Your task to perform on an android device: turn on data saver in the chrome app Image 0: 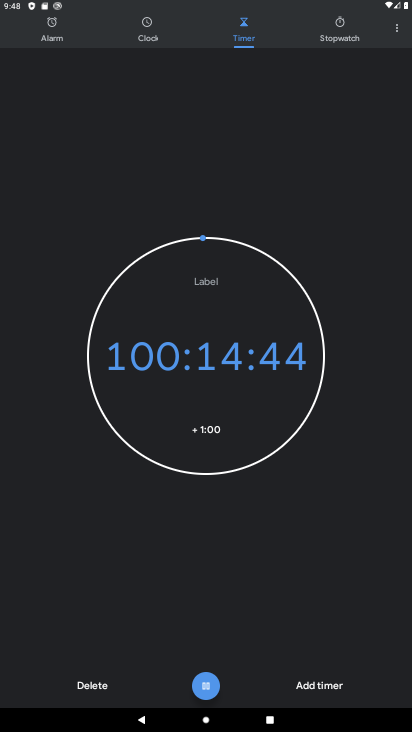
Step 0: press home button
Your task to perform on an android device: turn on data saver in the chrome app Image 1: 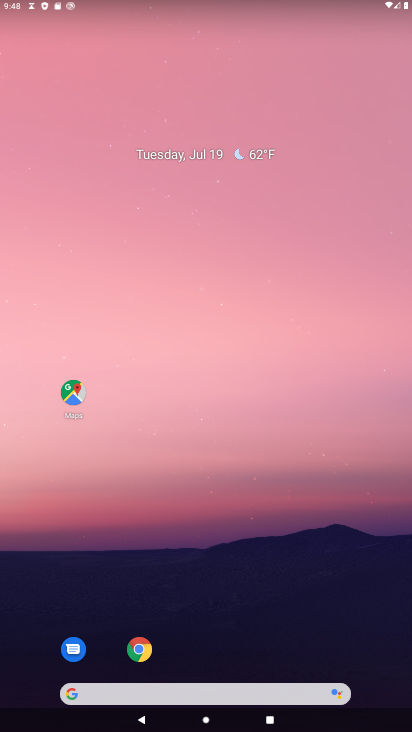
Step 1: drag from (225, 688) to (251, 156)
Your task to perform on an android device: turn on data saver in the chrome app Image 2: 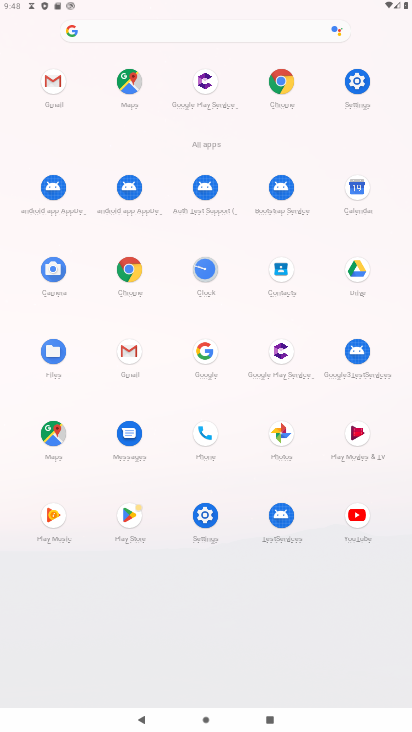
Step 2: click (138, 262)
Your task to perform on an android device: turn on data saver in the chrome app Image 3: 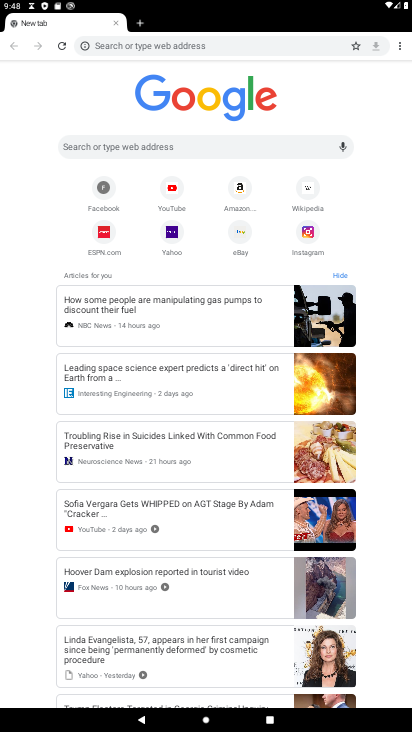
Step 3: drag from (400, 44) to (378, 135)
Your task to perform on an android device: turn on data saver in the chrome app Image 4: 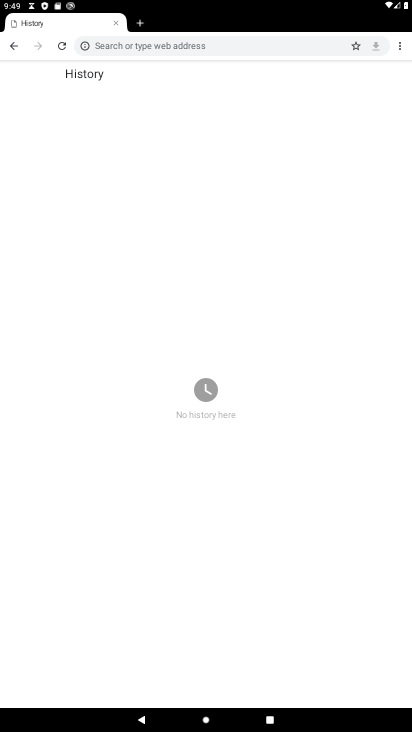
Step 4: drag from (398, 47) to (308, 212)
Your task to perform on an android device: turn on data saver in the chrome app Image 5: 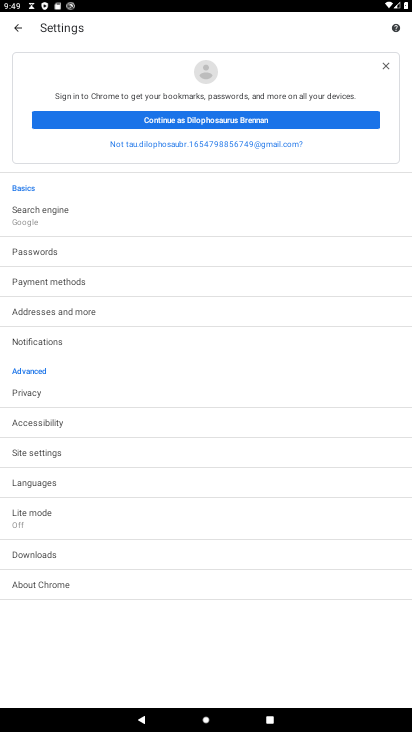
Step 5: click (79, 509)
Your task to perform on an android device: turn on data saver in the chrome app Image 6: 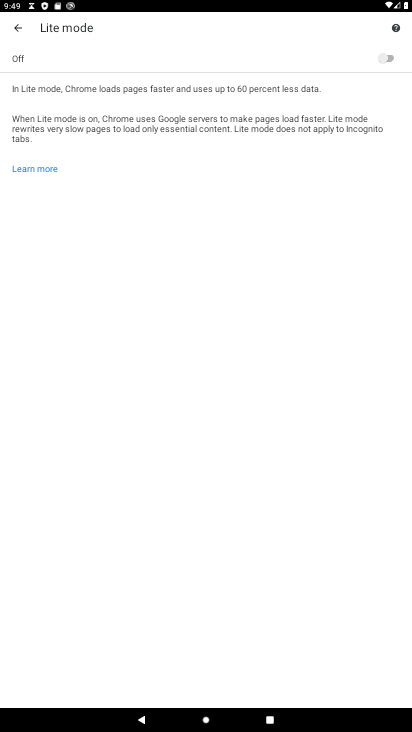
Step 6: click (377, 56)
Your task to perform on an android device: turn on data saver in the chrome app Image 7: 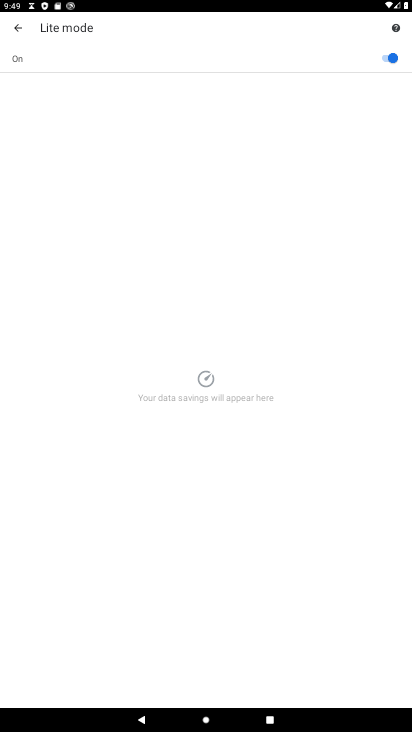
Step 7: task complete